Your task to perform on an android device: Go to location settings Image 0: 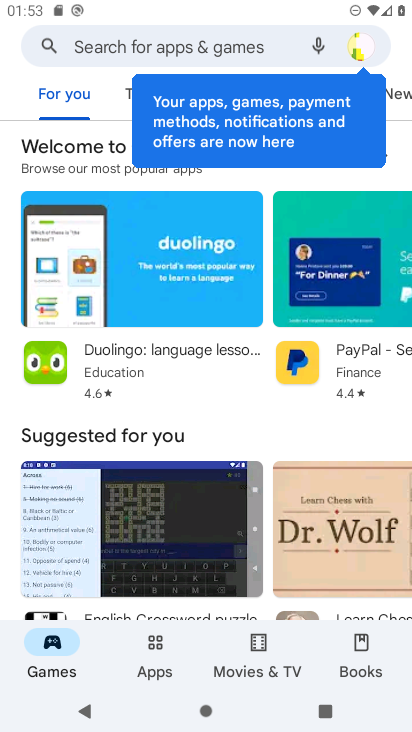
Step 0: press home button
Your task to perform on an android device: Go to location settings Image 1: 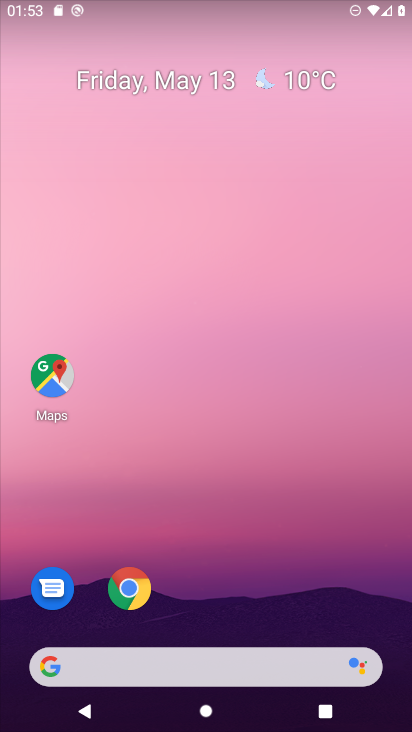
Step 1: drag from (229, 608) to (199, 170)
Your task to perform on an android device: Go to location settings Image 2: 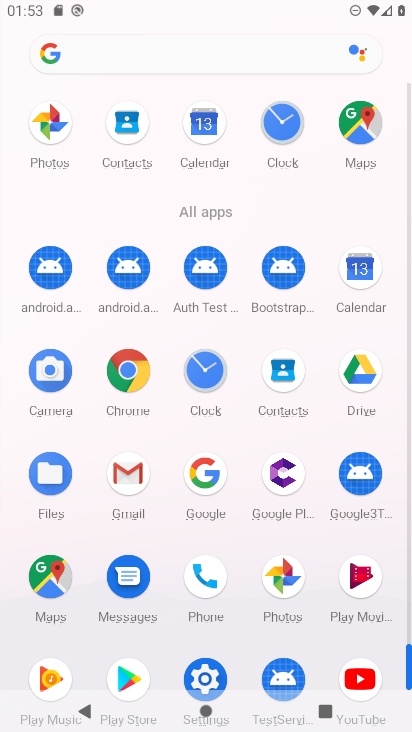
Step 2: click (205, 673)
Your task to perform on an android device: Go to location settings Image 3: 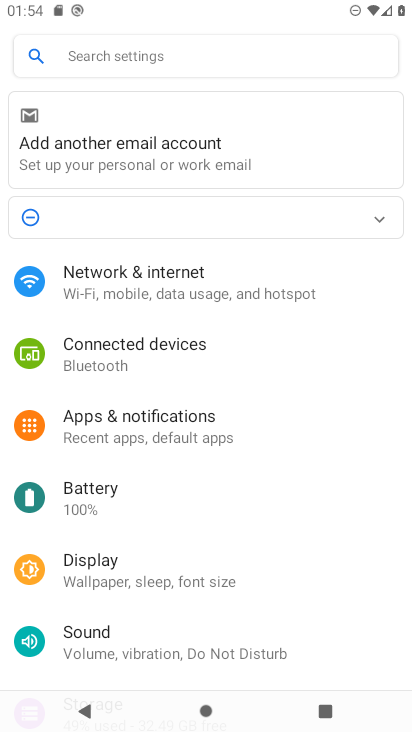
Step 3: drag from (326, 582) to (276, 291)
Your task to perform on an android device: Go to location settings Image 4: 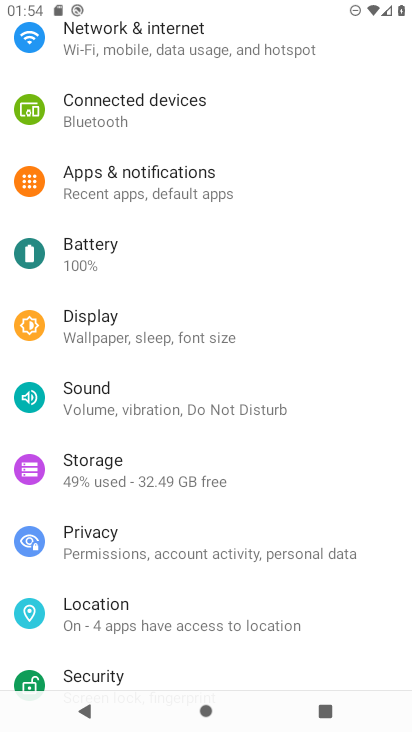
Step 4: click (101, 615)
Your task to perform on an android device: Go to location settings Image 5: 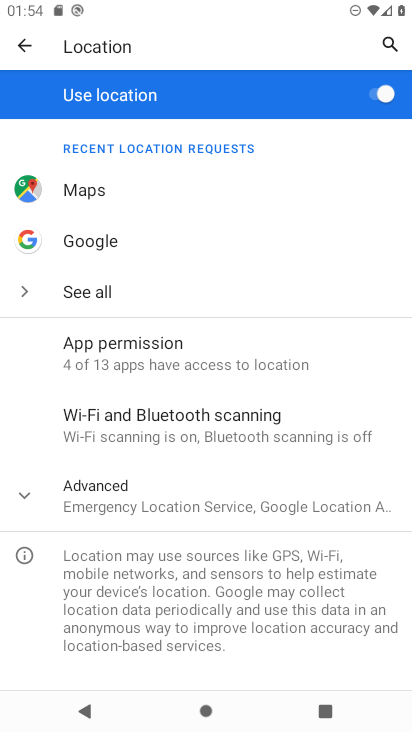
Step 5: task complete